Your task to perform on an android device: open chrome privacy settings Image 0: 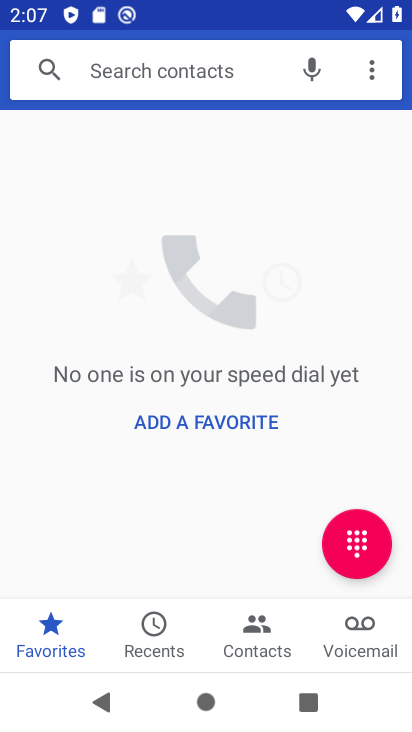
Step 0: press home button
Your task to perform on an android device: open chrome privacy settings Image 1: 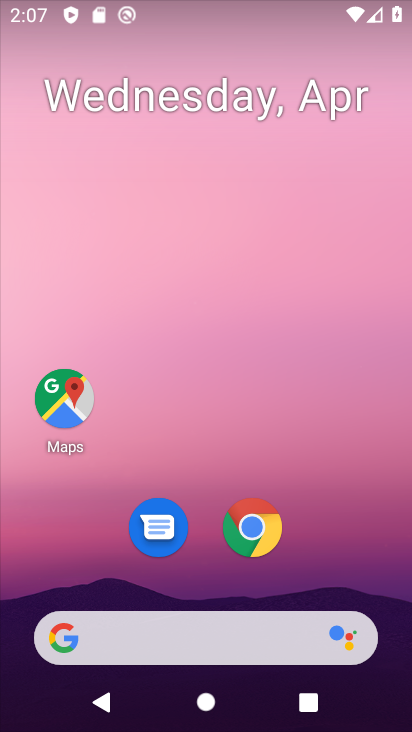
Step 1: drag from (355, 534) to (320, 0)
Your task to perform on an android device: open chrome privacy settings Image 2: 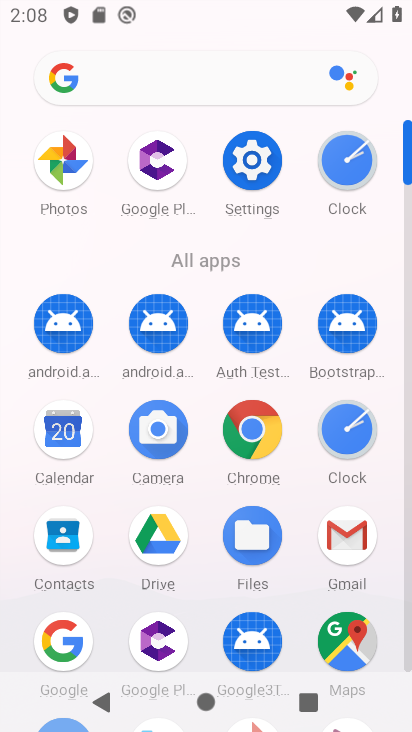
Step 2: click (253, 424)
Your task to perform on an android device: open chrome privacy settings Image 3: 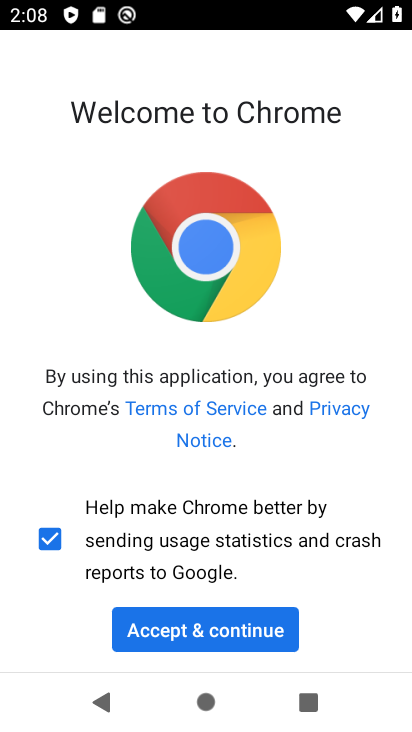
Step 3: click (222, 630)
Your task to perform on an android device: open chrome privacy settings Image 4: 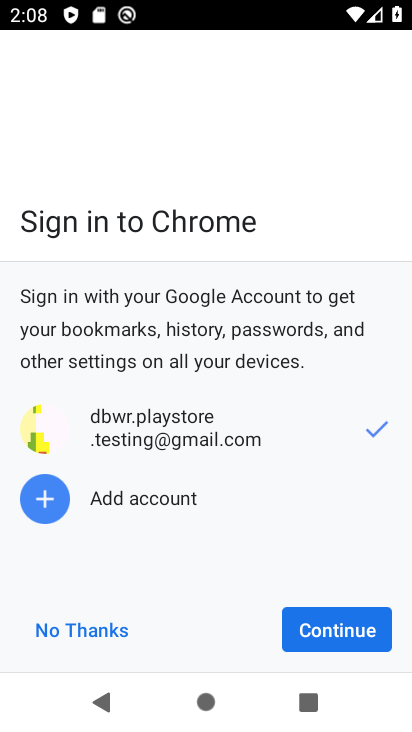
Step 4: click (48, 621)
Your task to perform on an android device: open chrome privacy settings Image 5: 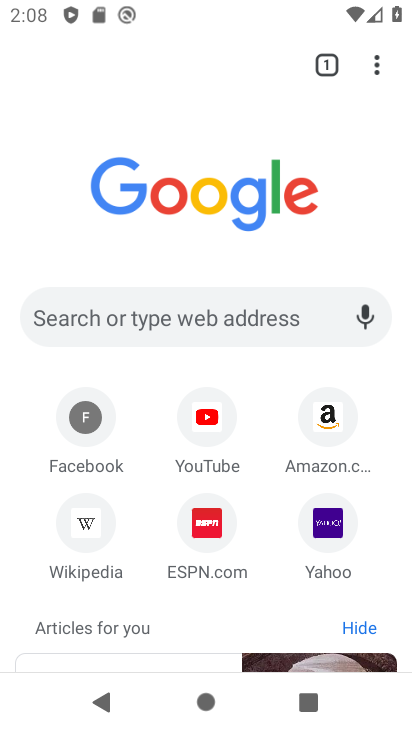
Step 5: drag from (381, 68) to (164, 542)
Your task to perform on an android device: open chrome privacy settings Image 6: 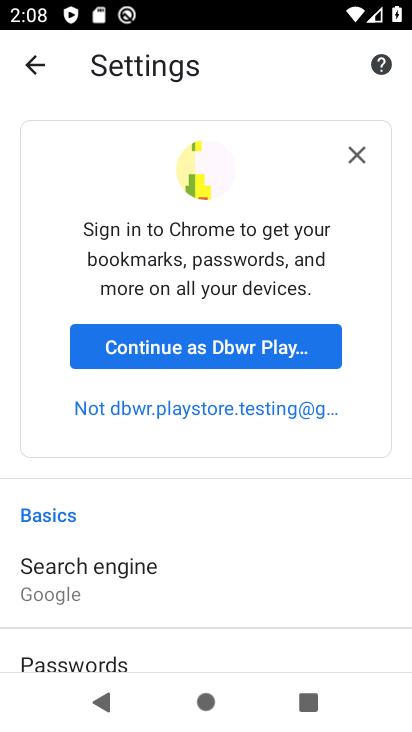
Step 6: drag from (230, 511) to (208, 218)
Your task to perform on an android device: open chrome privacy settings Image 7: 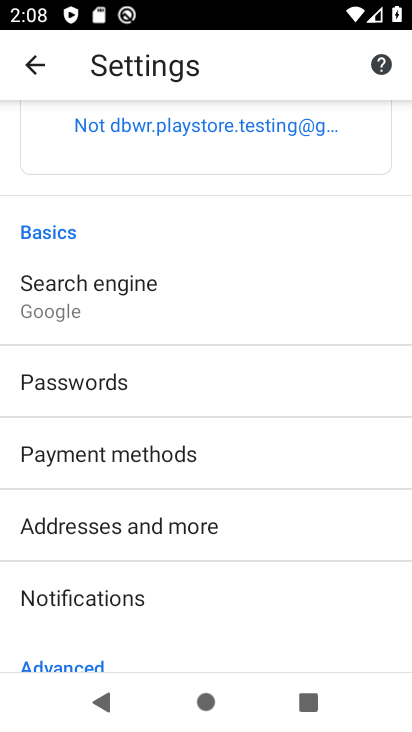
Step 7: drag from (229, 556) to (214, 242)
Your task to perform on an android device: open chrome privacy settings Image 8: 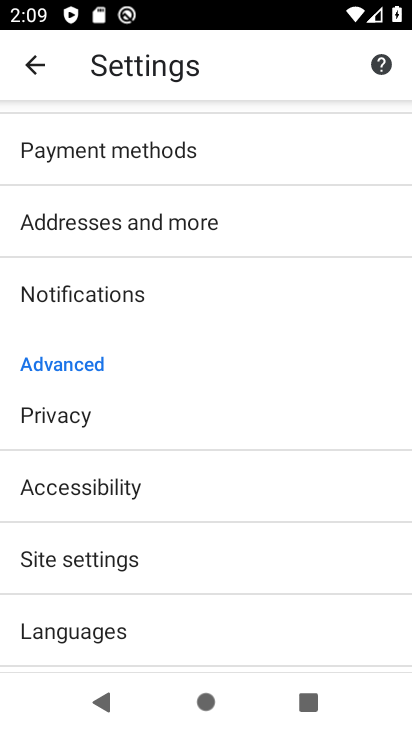
Step 8: drag from (172, 491) to (135, 337)
Your task to perform on an android device: open chrome privacy settings Image 9: 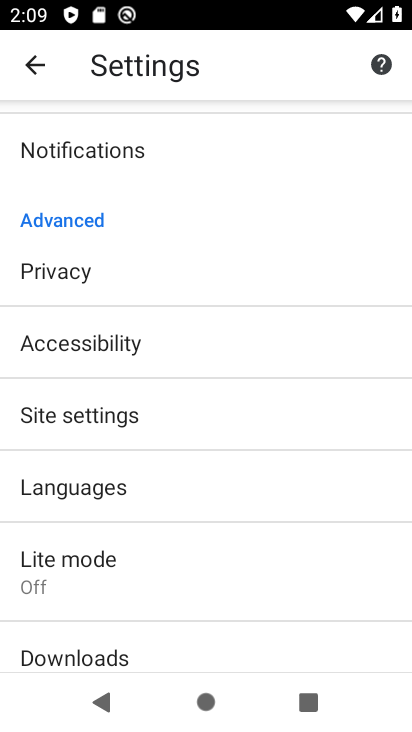
Step 9: click (67, 280)
Your task to perform on an android device: open chrome privacy settings Image 10: 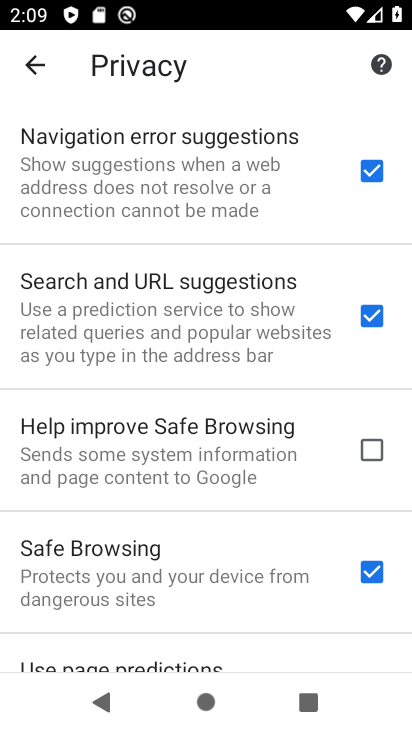
Step 10: task complete